Your task to perform on an android device: change timer sound Image 0: 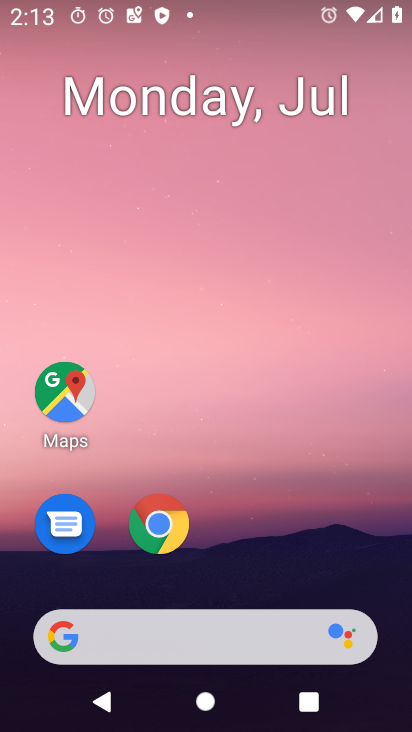
Step 0: drag from (247, 578) to (298, 128)
Your task to perform on an android device: change timer sound Image 1: 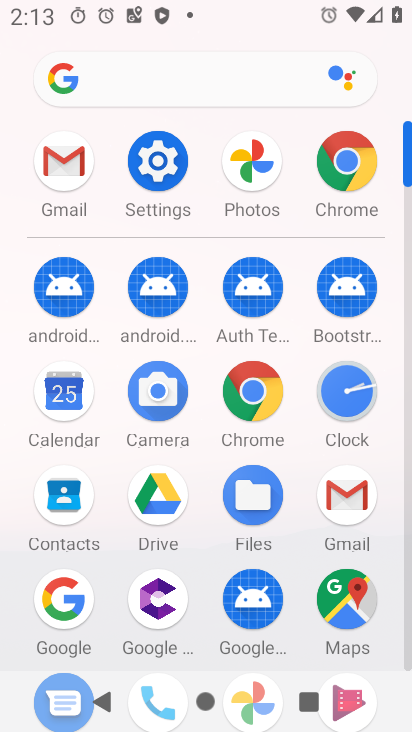
Step 1: click (340, 404)
Your task to perform on an android device: change timer sound Image 2: 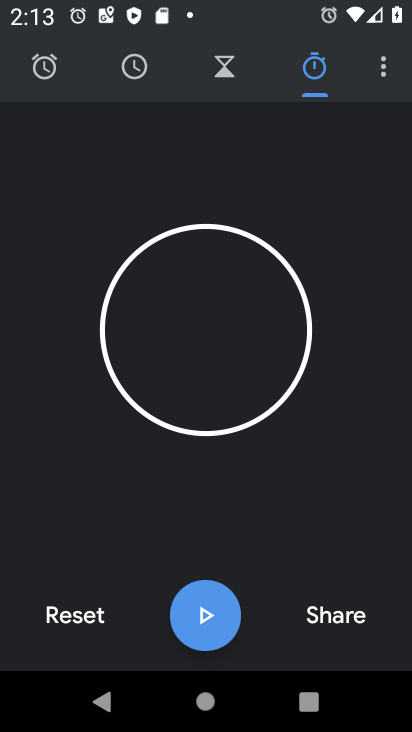
Step 2: click (392, 59)
Your task to perform on an android device: change timer sound Image 3: 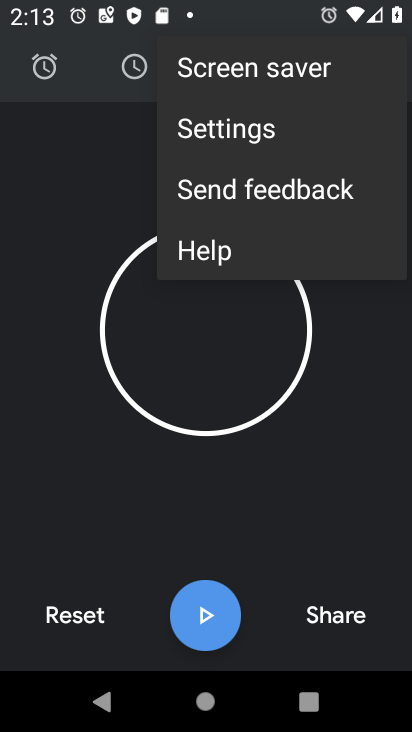
Step 3: click (219, 139)
Your task to perform on an android device: change timer sound Image 4: 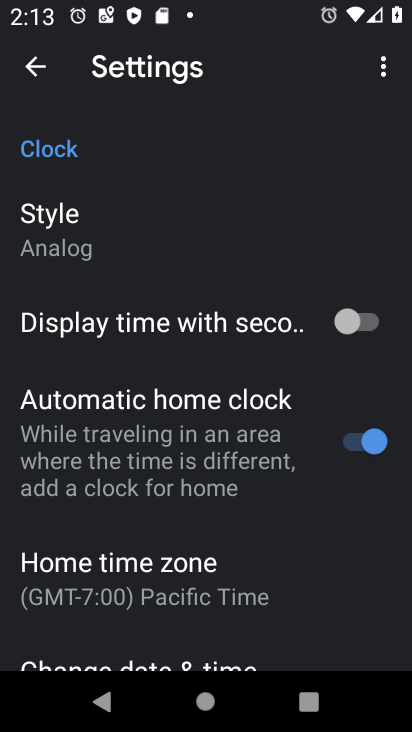
Step 4: drag from (363, 440) to (365, 134)
Your task to perform on an android device: change timer sound Image 5: 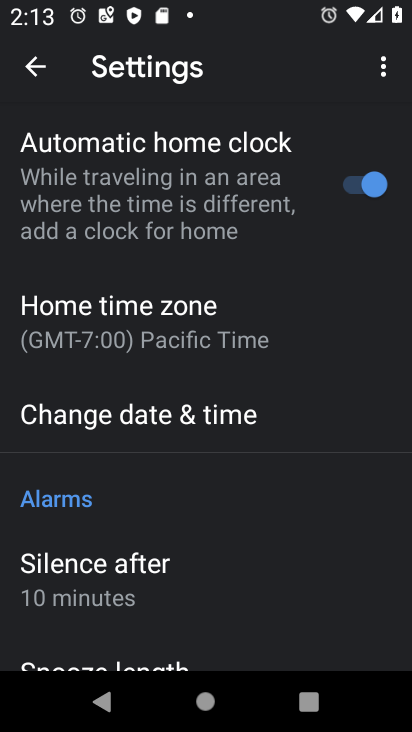
Step 5: drag from (303, 567) to (305, 217)
Your task to perform on an android device: change timer sound Image 6: 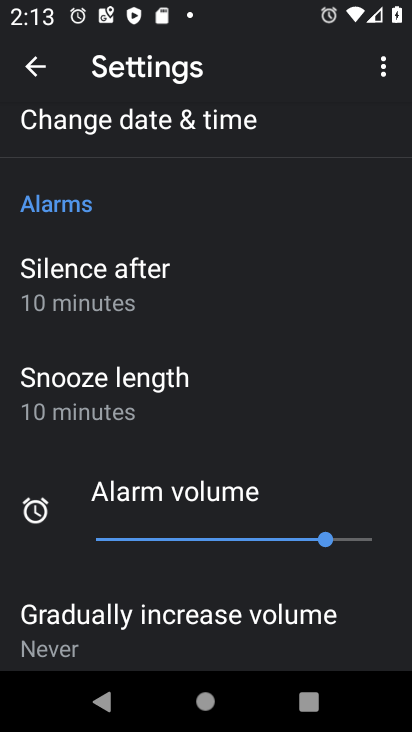
Step 6: drag from (351, 603) to (375, 302)
Your task to perform on an android device: change timer sound Image 7: 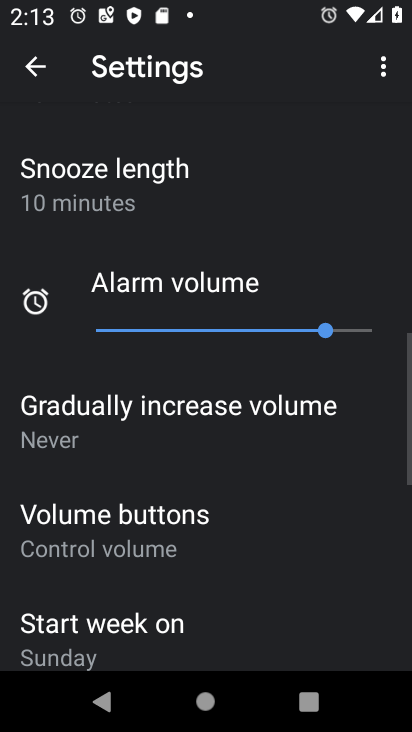
Step 7: drag from (302, 560) to (341, 273)
Your task to perform on an android device: change timer sound Image 8: 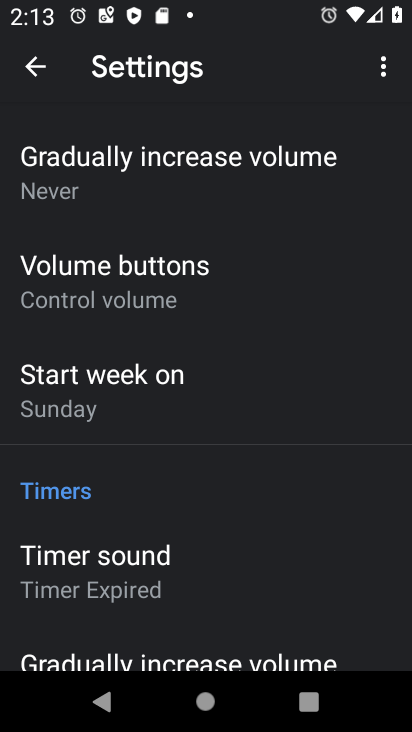
Step 8: click (99, 568)
Your task to perform on an android device: change timer sound Image 9: 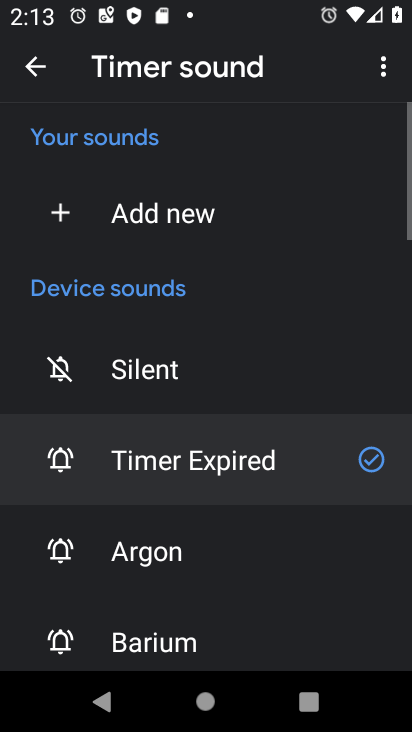
Step 9: click (60, 555)
Your task to perform on an android device: change timer sound Image 10: 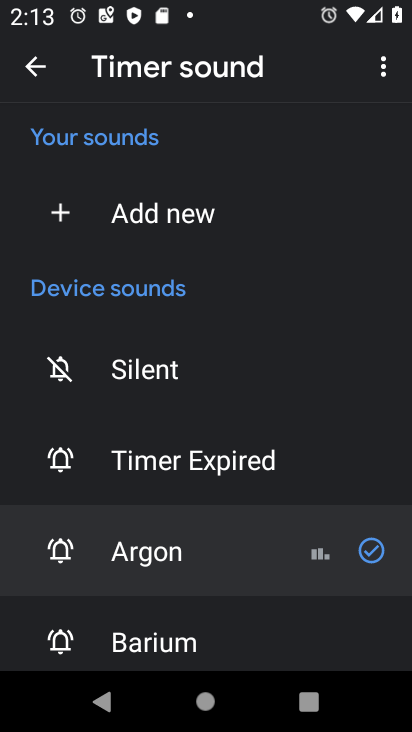
Step 10: task complete